Your task to perform on an android device: When is my next appointment? Image 0: 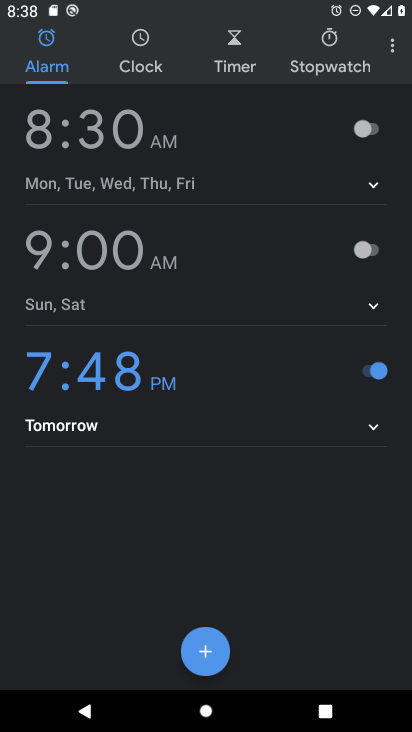
Step 0: press home button
Your task to perform on an android device: When is my next appointment? Image 1: 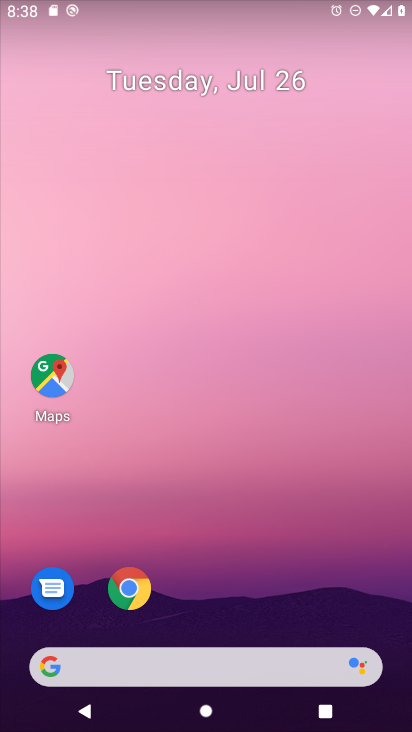
Step 1: drag from (245, 650) to (278, 76)
Your task to perform on an android device: When is my next appointment? Image 2: 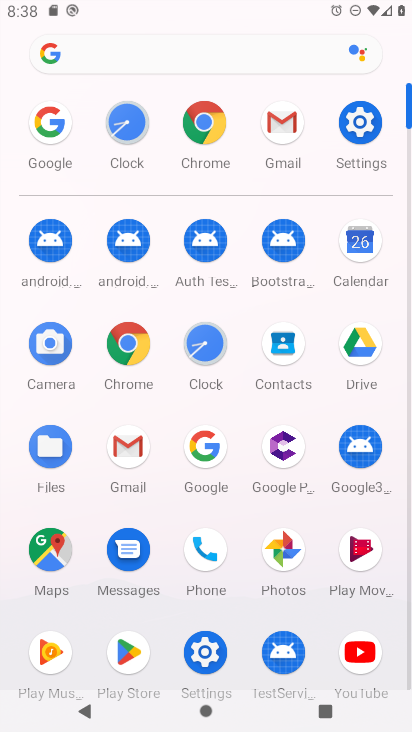
Step 2: click (353, 253)
Your task to perform on an android device: When is my next appointment? Image 3: 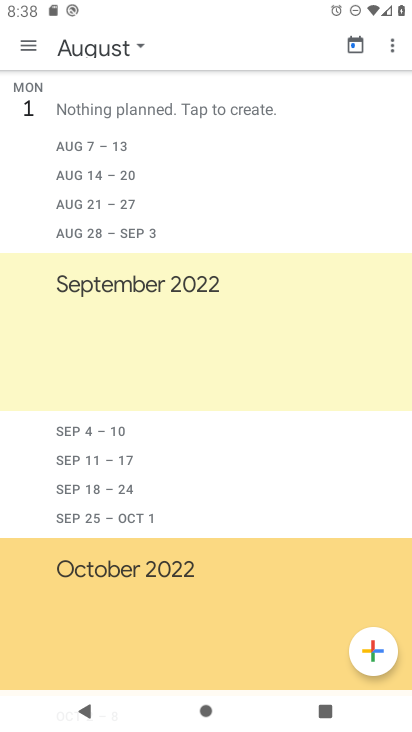
Step 3: click (34, 48)
Your task to perform on an android device: When is my next appointment? Image 4: 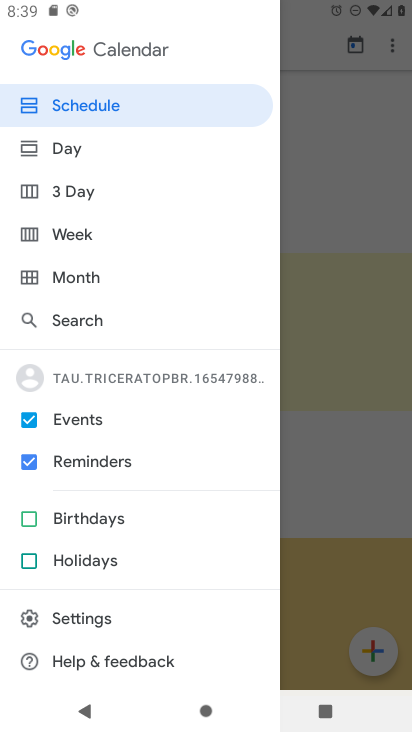
Step 4: click (353, 491)
Your task to perform on an android device: When is my next appointment? Image 5: 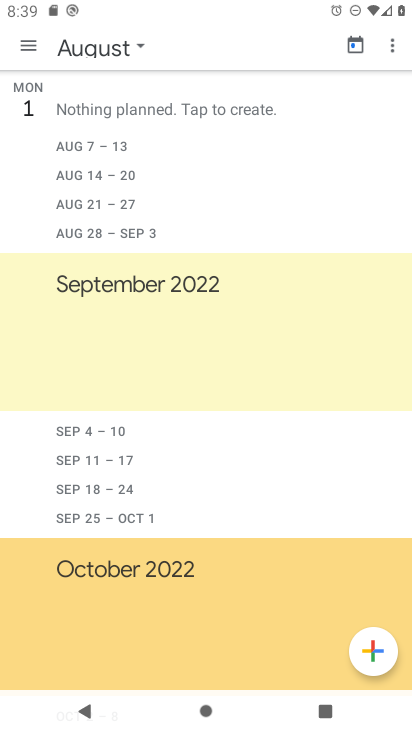
Step 5: click (123, 51)
Your task to perform on an android device: When is my next appointment? Image 6: 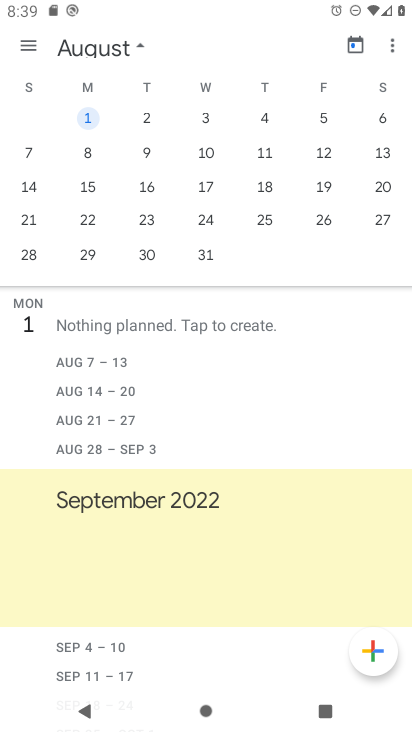
Step 6: drag from (46, 219) to (405, 213)
Your task to perform on an android device: When is my next appointment? Image 7: 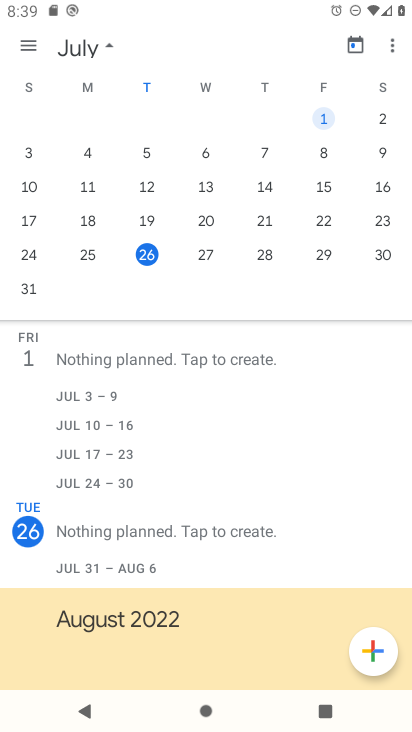
Step 7: click (148, 260)
Your task to perform on an android device: When is my next appointment? Image 8: 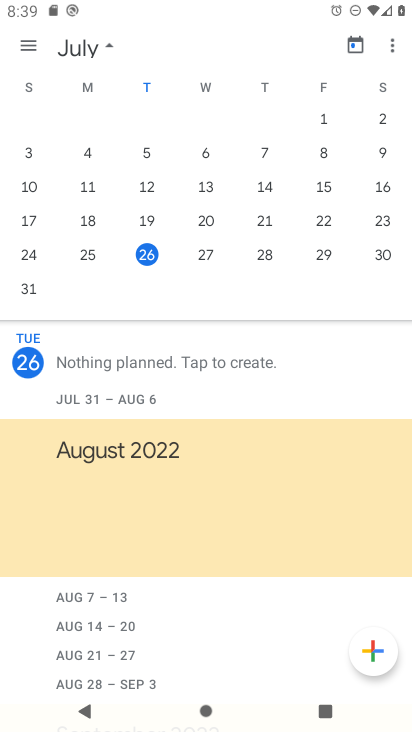
Step 8: task complete